Your task to perform on an android device: find snoozed emails in the gmail app Image 0: 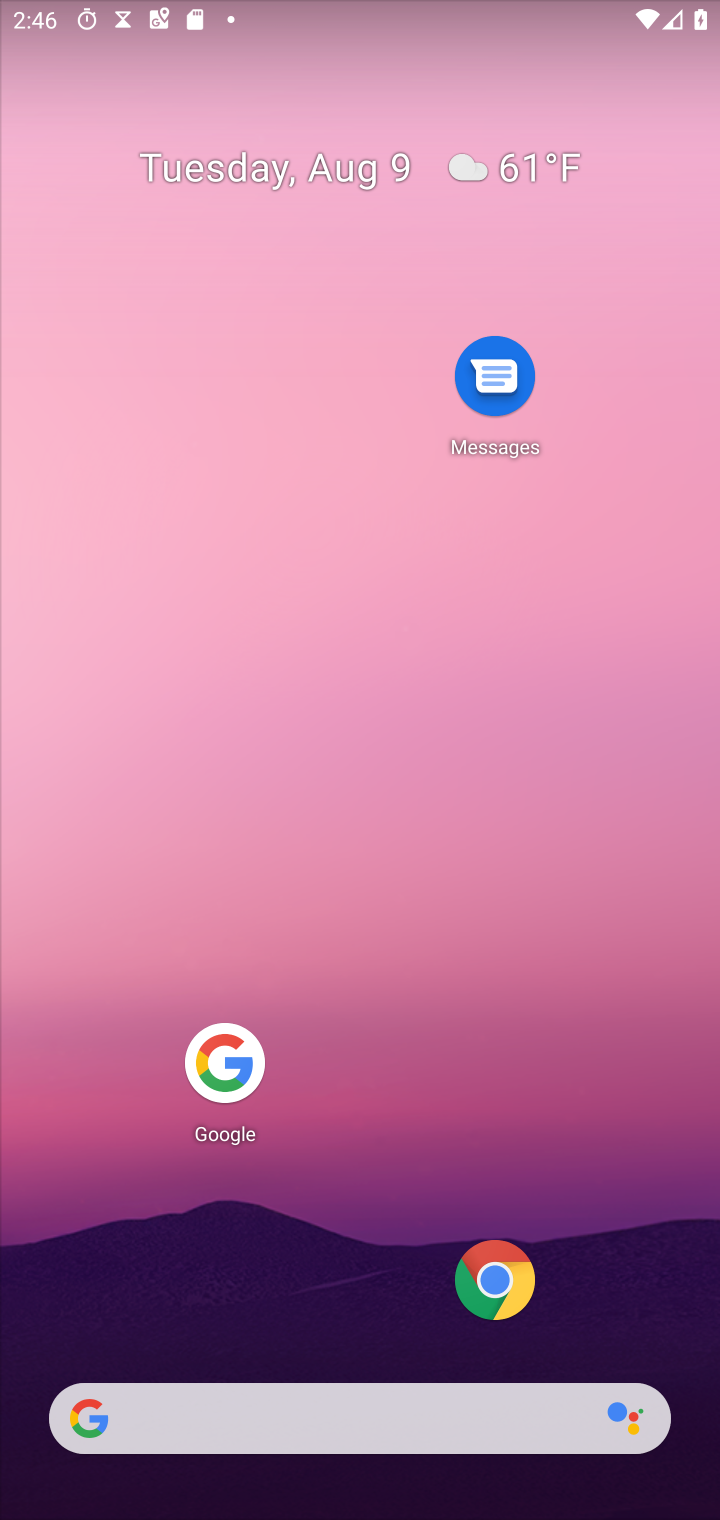
Step 0: drag from (415, 1234) to (574, 177)
Your task to perform on an android device: find snoozed emails in the gmail app Image 1: 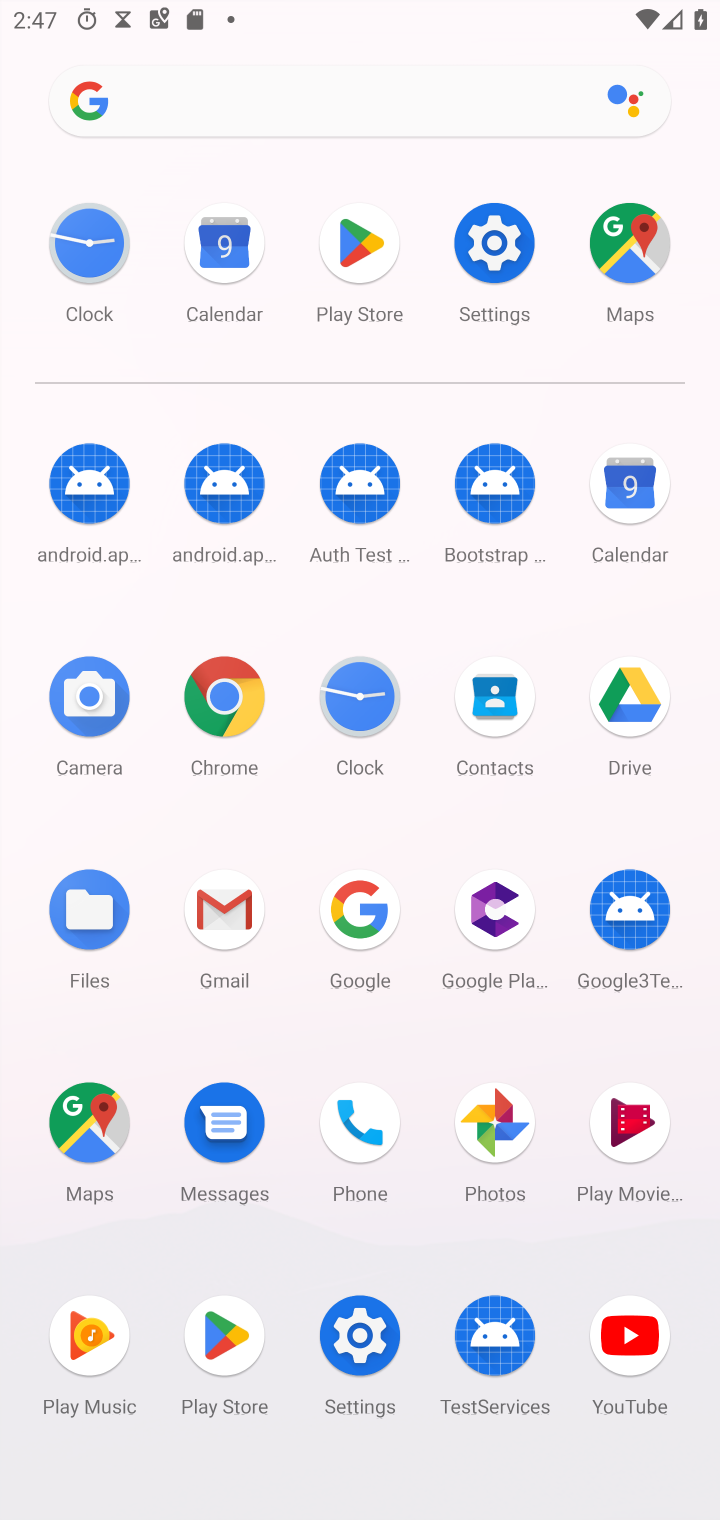
Step 1: click (234, 903)
Your task to perform on an android device: find snoozed emails in the gmail app Image 2: 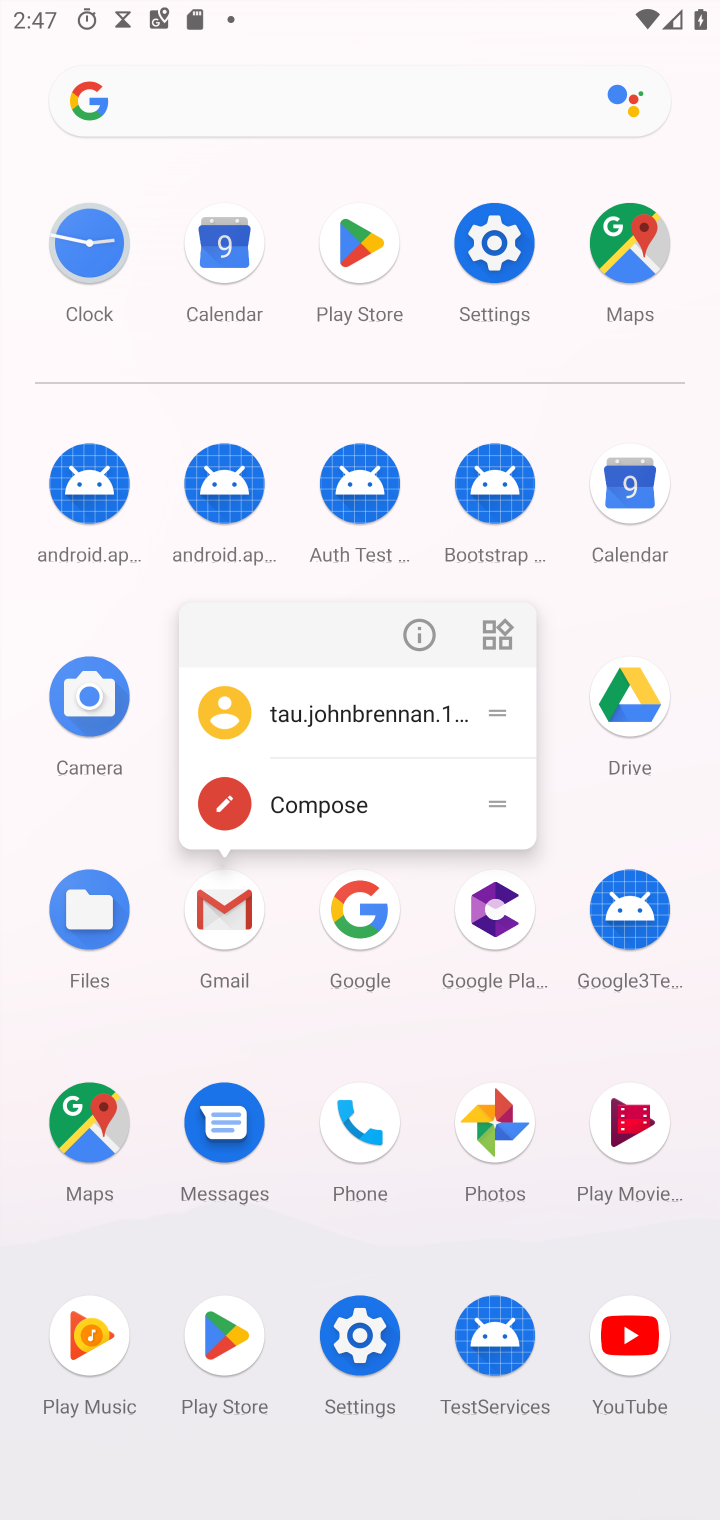
Step 2: click (234, 908)
Your task to perform on an android device: find snoozed emails in the gmail app Image 3: 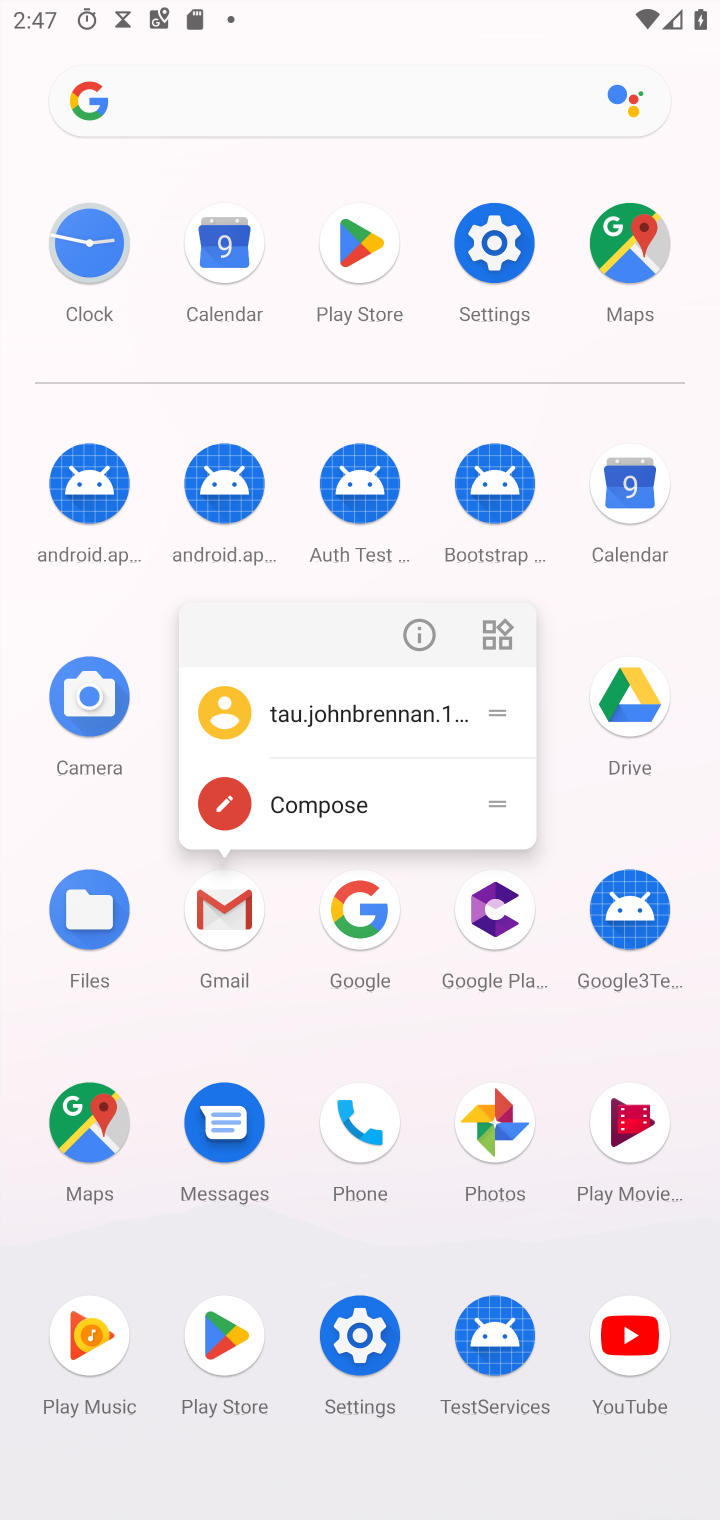
Step 3: click (234, 908)
Your task to perform on an android device: find snoozed emails in the gmail app Image 4: 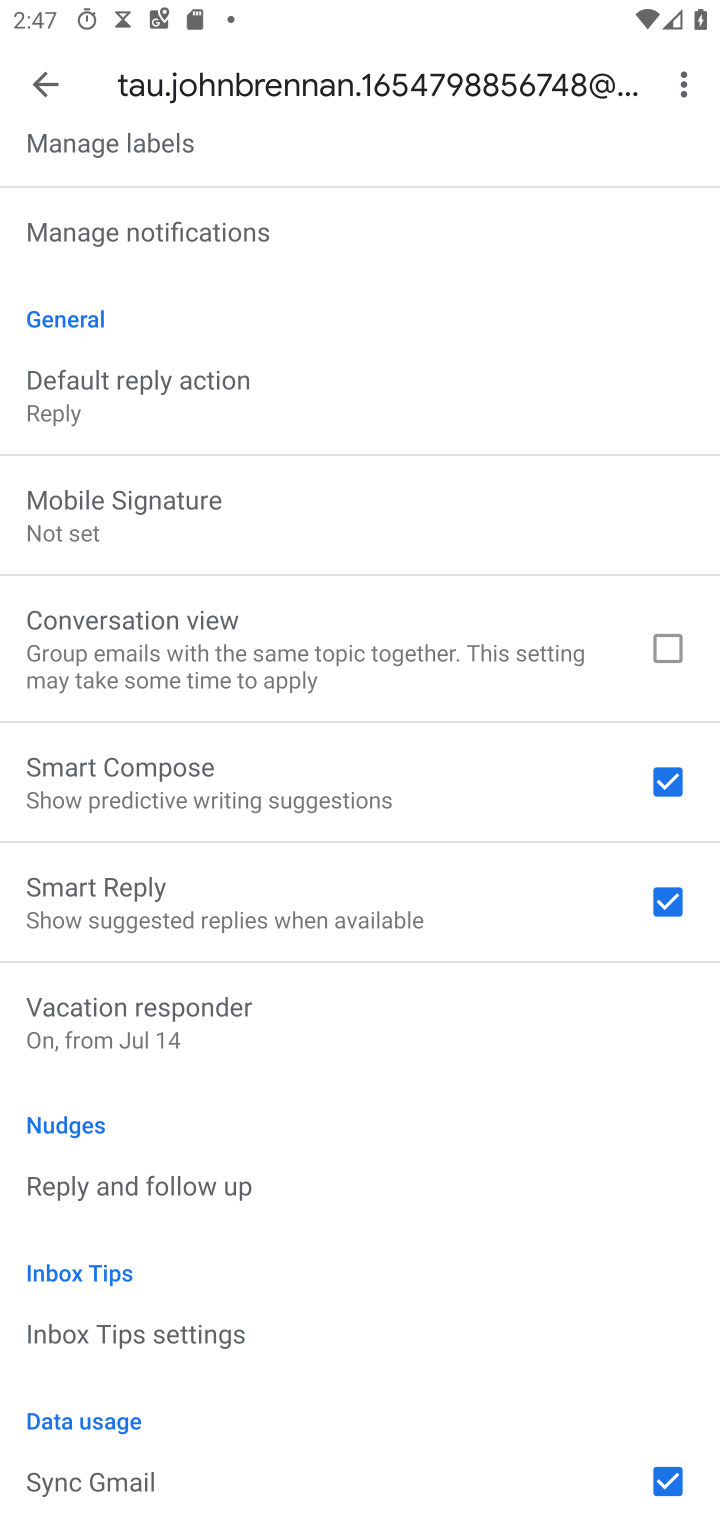
Step 4: click (53, 79)
Your task to perform on an android device: find snoozed emails in the gmail app Image 5: 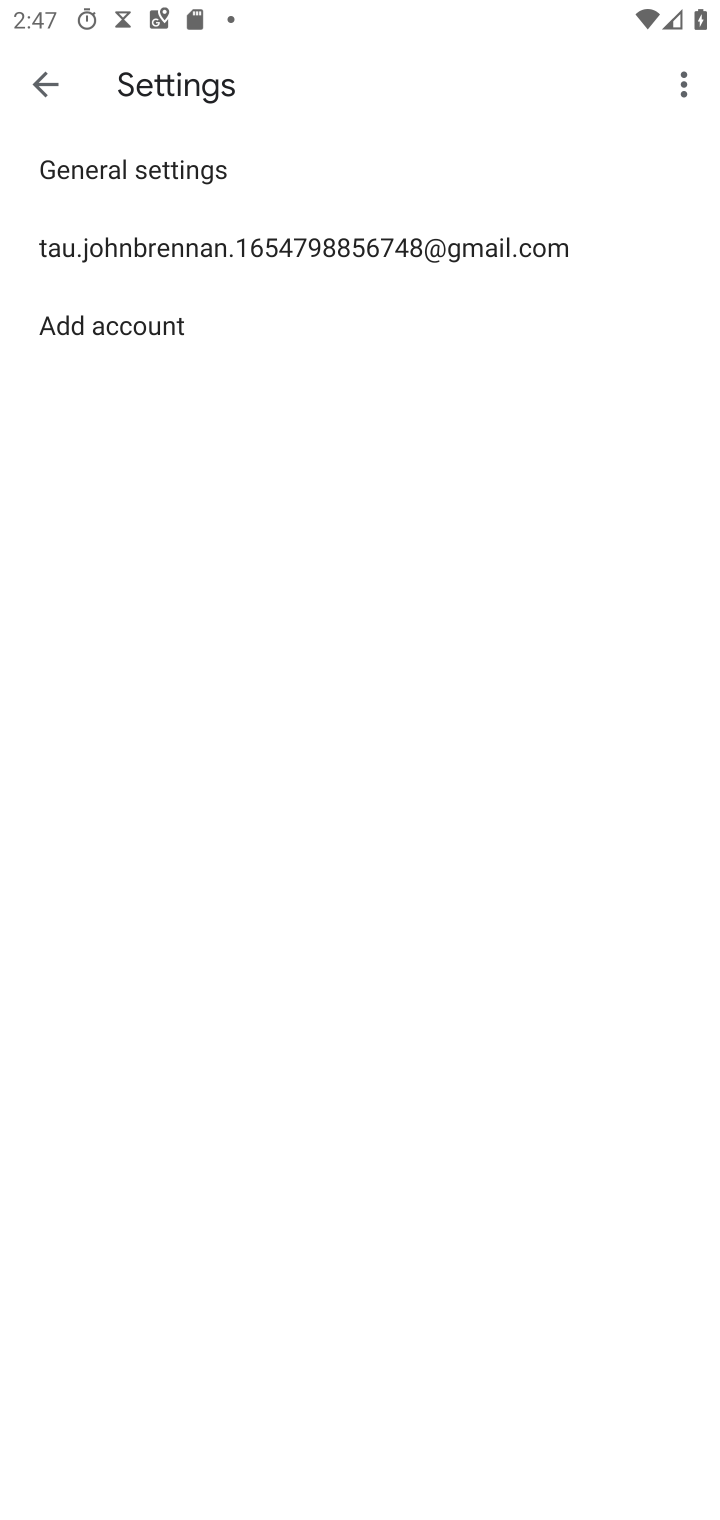
Step 5: click (53, 81)
Your task to perform on an android device: find snoozed emails in the gmail app Image 6: 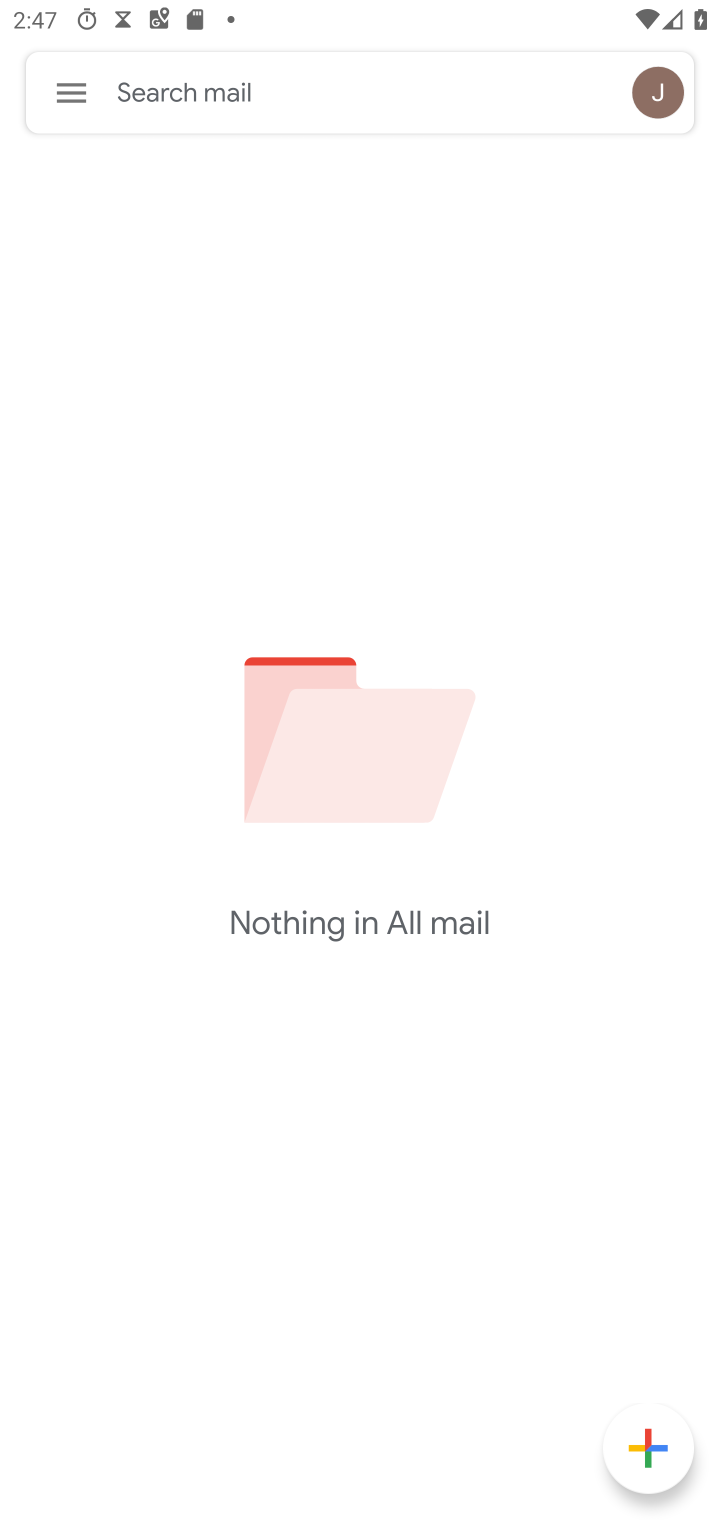
Step 6: click (63, 83)
Your task to perform on an android device: find snoozed emails in the gmail app Image 7: 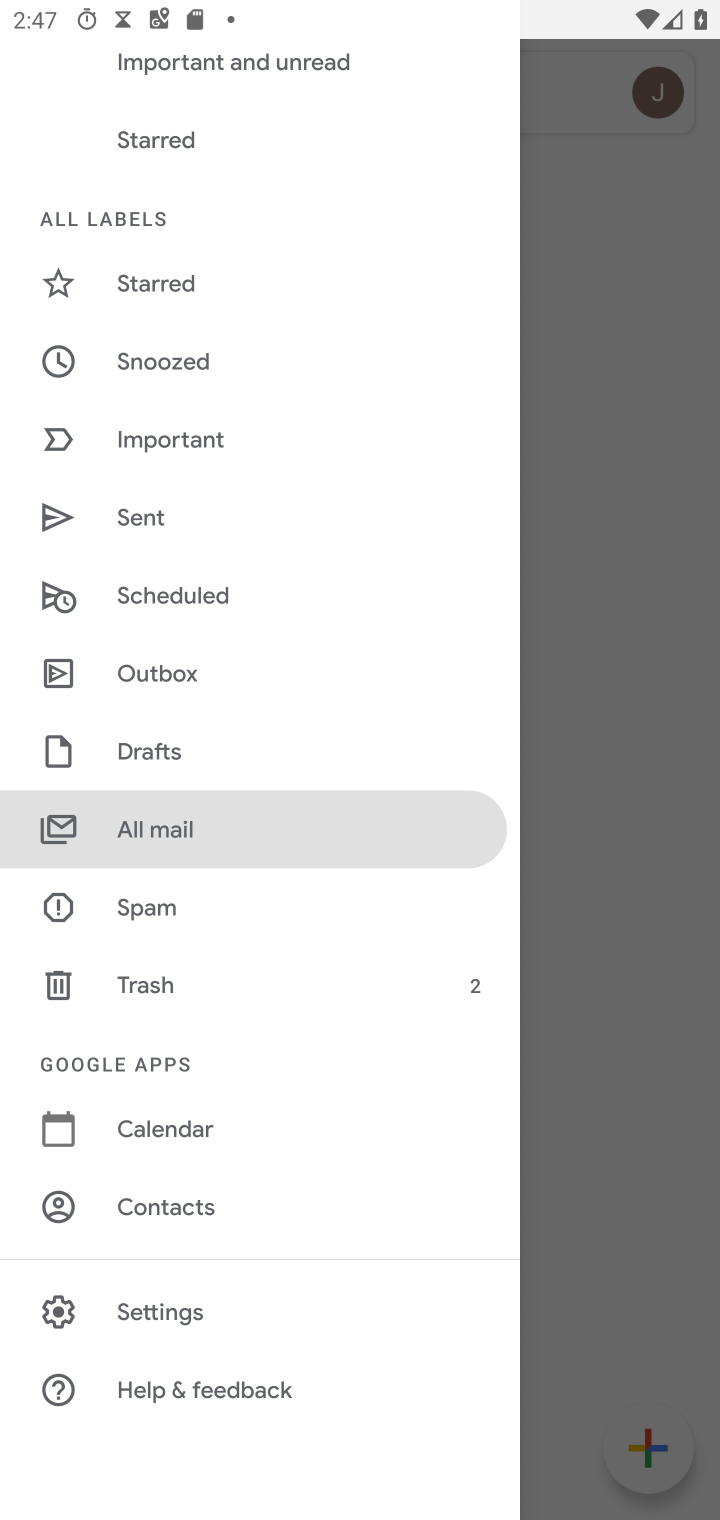
Step 7: click (196, 348)
Your task to perform on an android device: find snoozed emails in the gmail app Image 8: 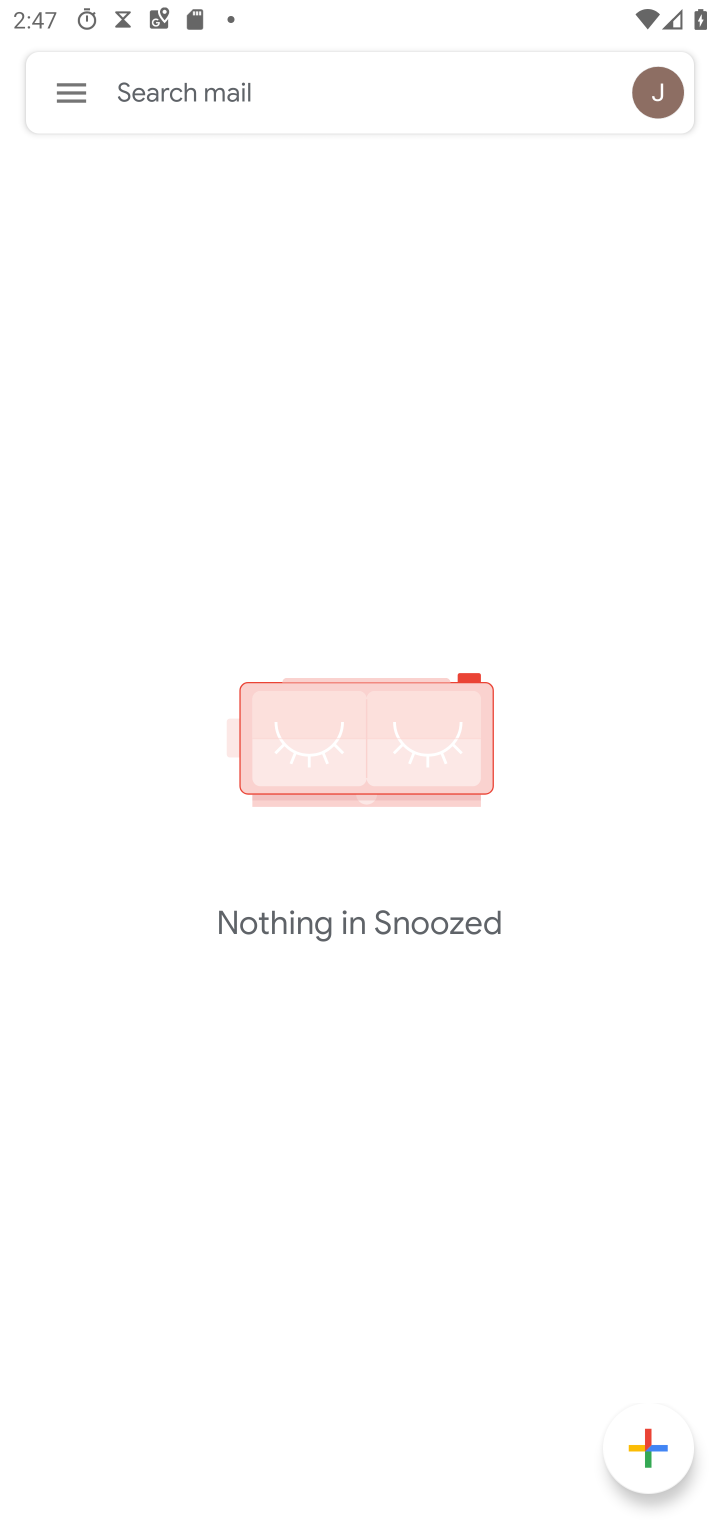
Step 8: task complete